Your task to perform on an android device: Open Youtube and go to "Your channel" Image 0: 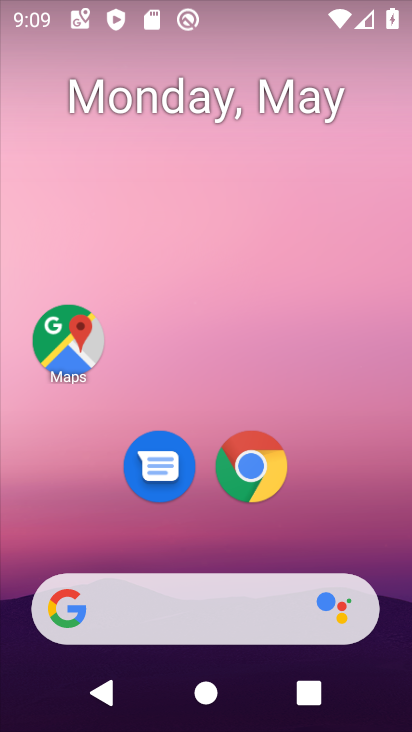
Step 0: press home button
Your task to perform on an android device: Open Youtube and go to "Your channel" Image 1: 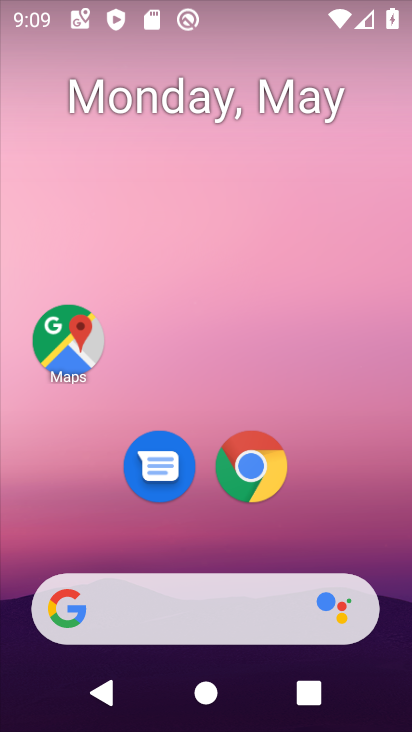
Step 1: drag from (269, 648) to (265, 104)
Your task to perform on an android device: Open Youtube and go to "Your channel" Image 2: 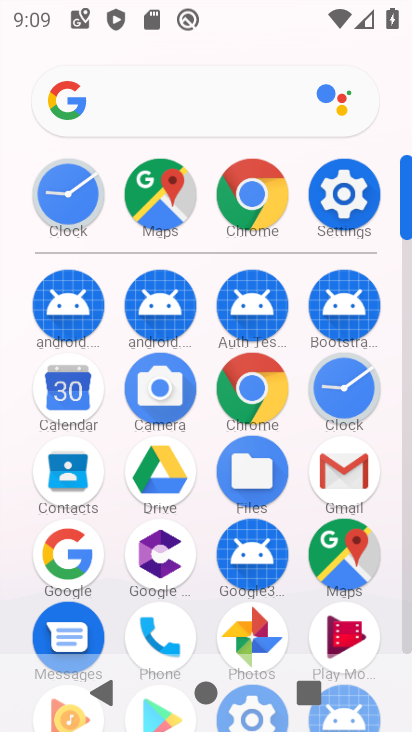
Step 2: drag from (206, 505) to (243, 40)
Your task to perform on an android device: Open Youtube and go to "Your channel" Image 3: 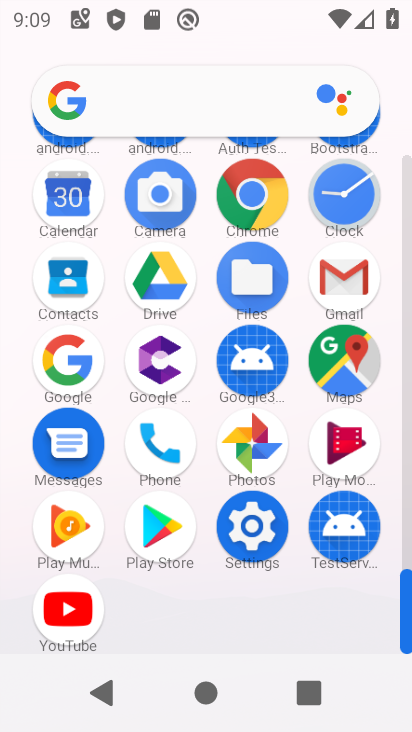
Step 3: click (75, 597)
Your task to perform on an android device: Open Youtube and go to "Your channel" Image 4: 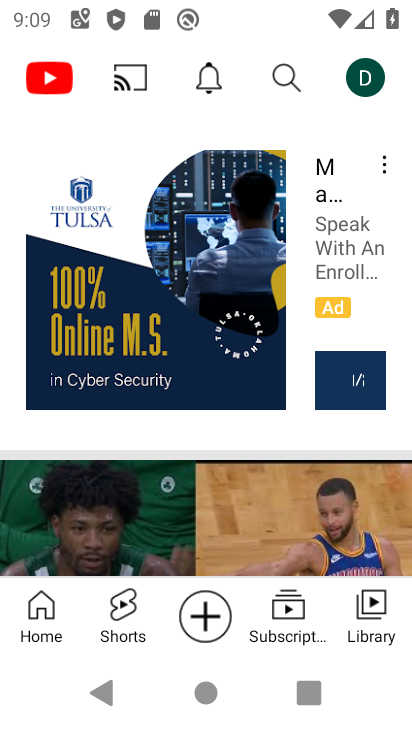
Step 4: click (369, 87)
Your task to perform on an android device: Open Youtube and go to "Your channel" Image 5: 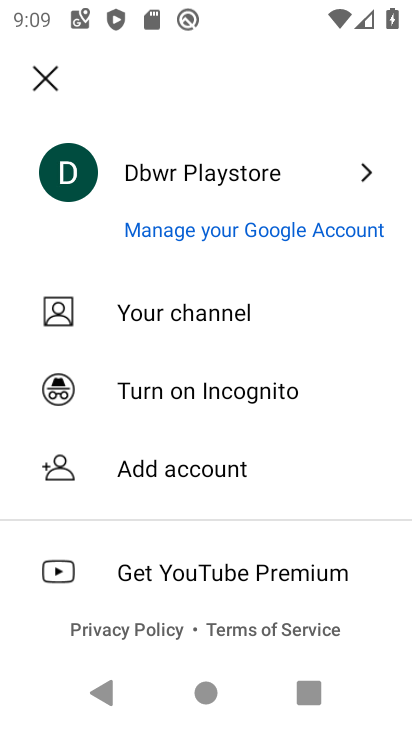
Step 5: click (166, 316)
Your task to perform on an android device: Open Youtube and go to "Your channel" Image 6: 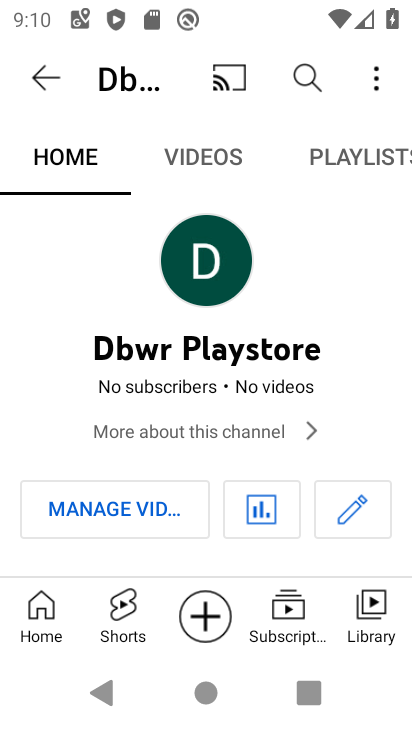
Step 6: task complete